Your task to perform on an android device: turn off location Image 0: 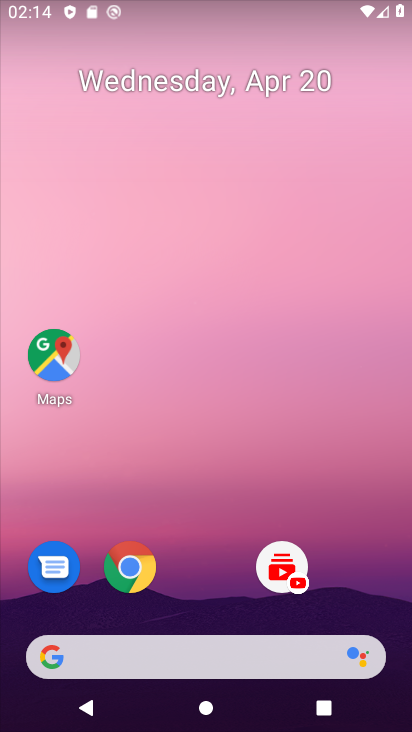
Step 0: drag from (232, 569) to (239, 136)
Your task to perform on an android device: turn off location Image 1: 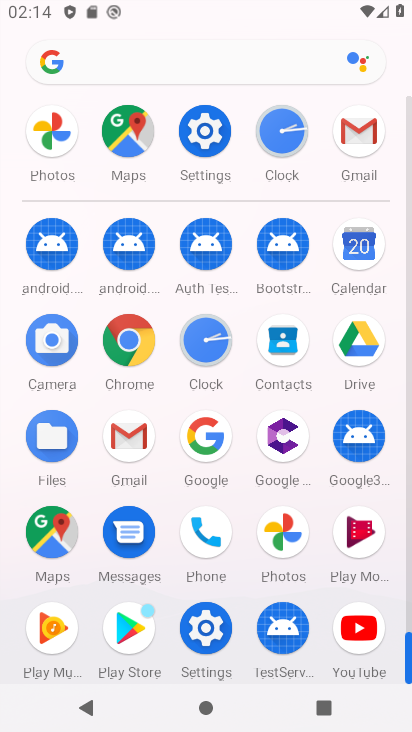
Step 1: click (215, 614)
Your task to perform on an android device: turn off location Image 2: 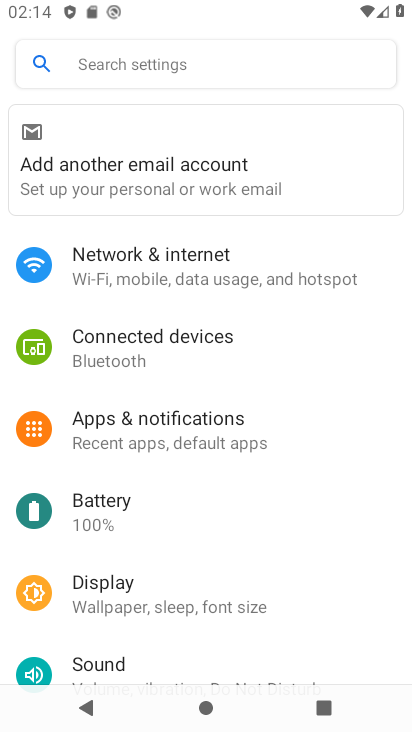
Step 2: drag from (231, 631) to (115, 91)
Your task to perform on an android device: turn off location Image 3: 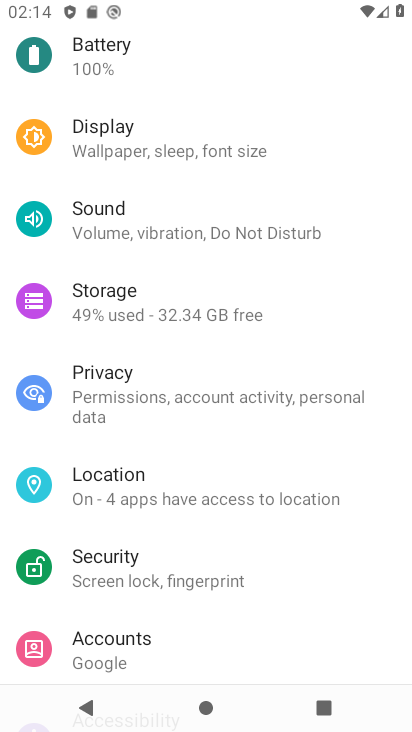
Step 3: click (155, 462)
Your task to perform on an android device: turn off location Image 4: 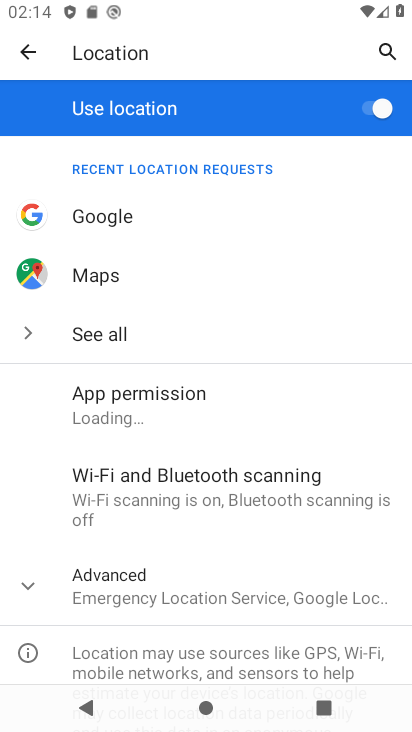
Step 4: drag from (242, 559) to (174, 208)
Your task to perform on an android device: turn off location Image 5: 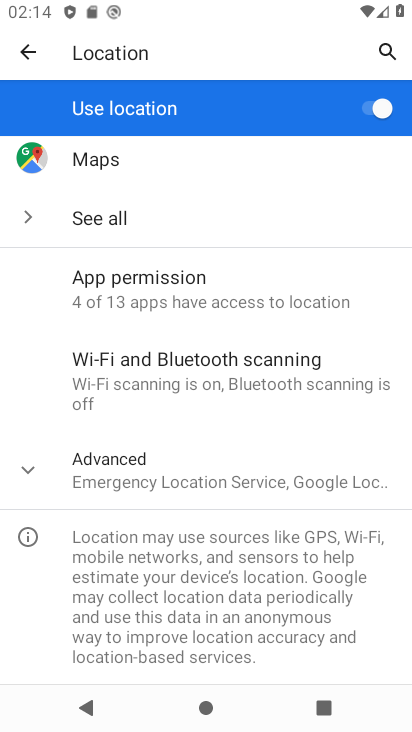
Step 5: drag from (261, 508) to (231, 190)
Your task to perform on an android device: turn off location Image 6: 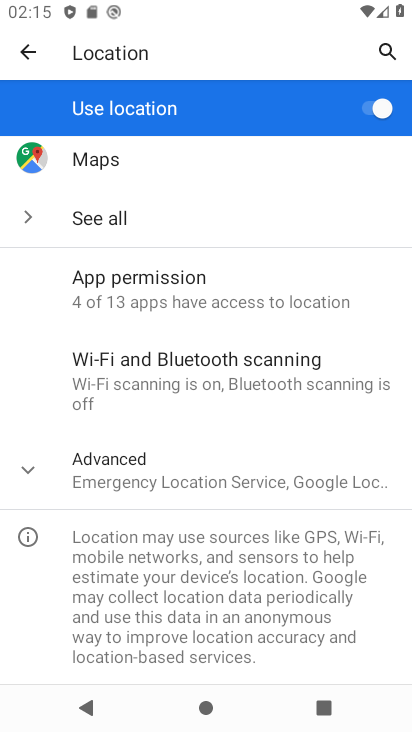
Step 6: click (371, 94)
Your task to perform on an android device: turn off location Image 7: 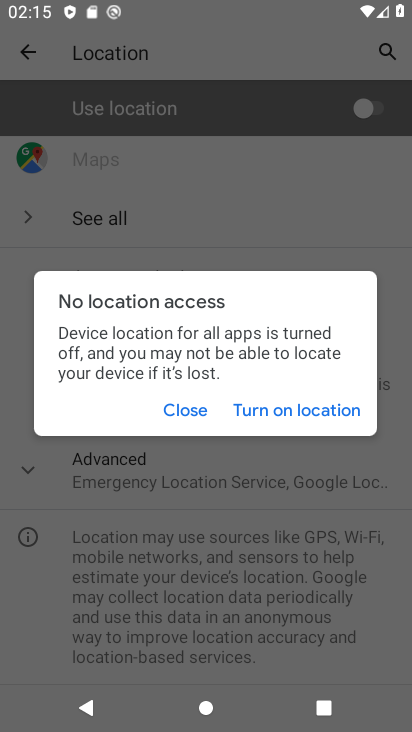
Step 7: task complete